Your task to perform on an android device: What's the weather going to be tomorrow? Image 0: 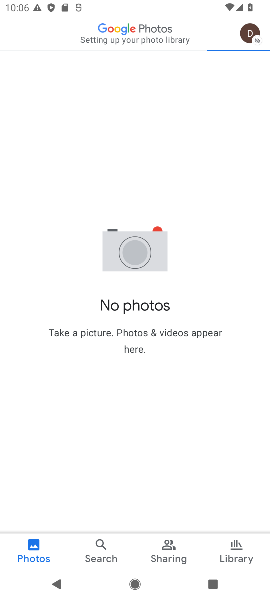
Step 0: press home button
Your task to perform on an android device: What's the weather going to be tomorrow? Image 1: 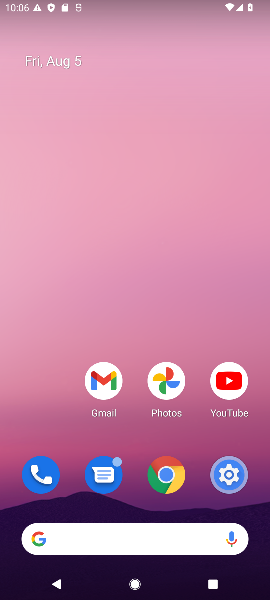
Step 1: click (123, 533)
Your task to perform on an android device: What's the weather going to be tomorrow? Image 2: 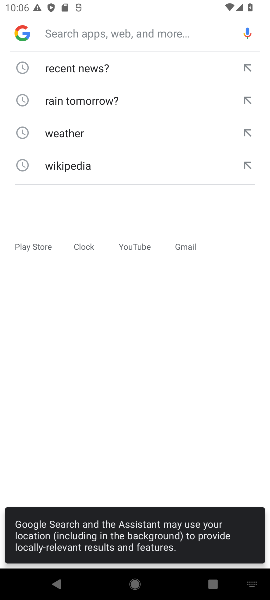
Step 2: click (78, 131)
Your task to perform on an android device: What's the weather going to be tomorrow? Image 3: 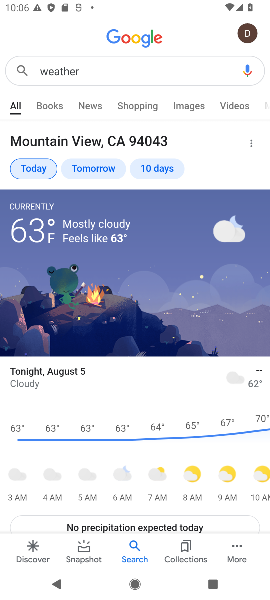
Step 3: click (103, 171)
Your task to perform on an android device: What's the weather going to be tomorrow? Image 4: 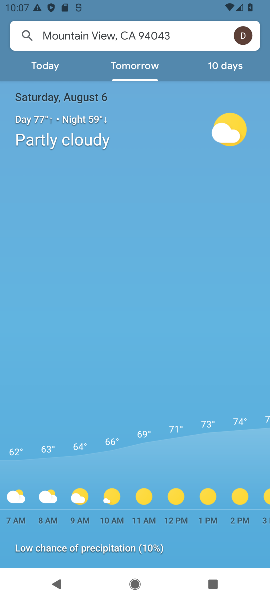
Step 4: task complete